Your task to perform on an android device: choose inbox layout in the gmail app Image 0: 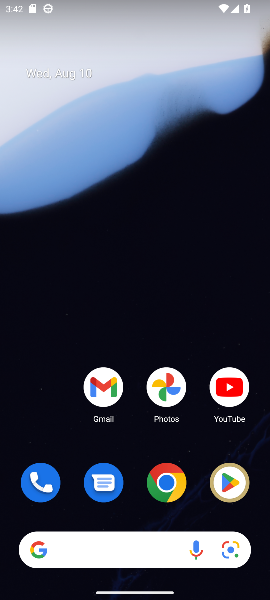
Step 0: press home button
Your task to perform on an android device: choose inbox layout in the gmail app Image 1: 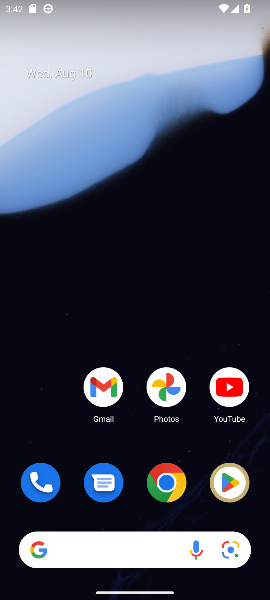
Step 1: drag from (136, 501) to (96, 43)
Your task to perform on an android device: choose inbox layout in the gmail app Image 2: 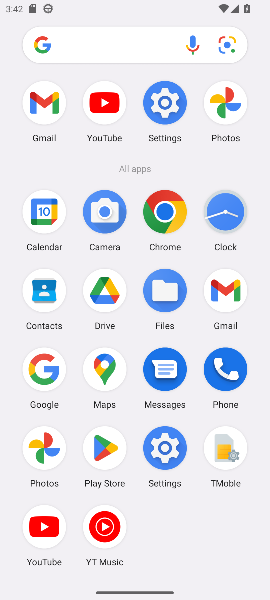
Step 2: click (38, 103)
Your task to perform on an android device: choose inbox layout in the gmail app Image 3: 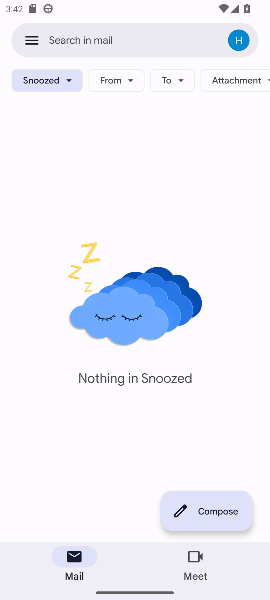
Step 3: click (31, 39)
Your task to perform on an android device: choose inbox layout in the gmail app Image 4: 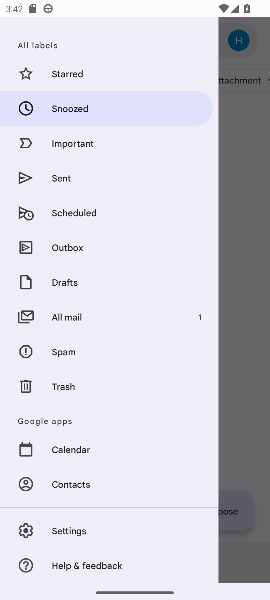
Step 4: click (68, 529)
Your task to perform on an android device: choose inbox layout in the gmail app Image 5: 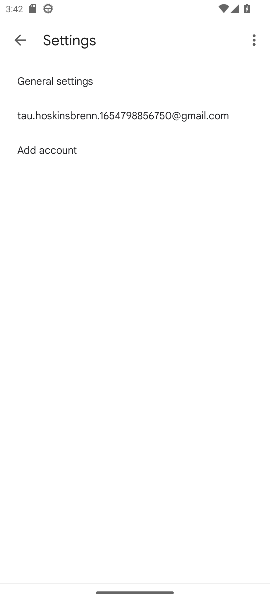
Step 5: click (104, 119)
Your task to perform on an android device: choose inbox layout in the gmail app Image 6: 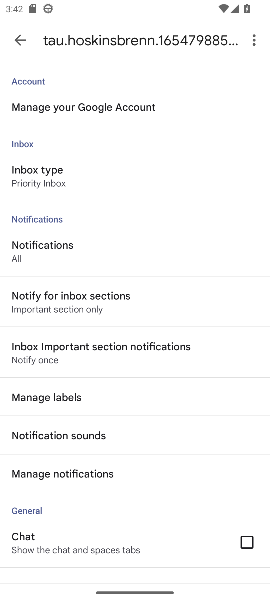
Step 6: click (47, 174)
Your task to perform on an android device: choose inbox layout in the gmail app Image 7: 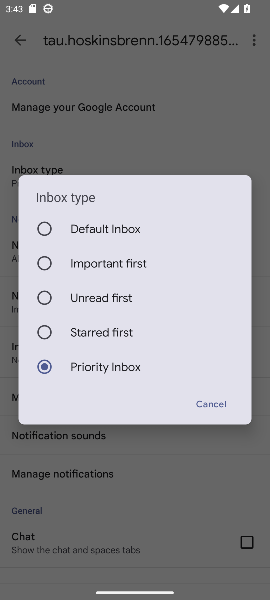
Step 7: click (93, 327)
Your task to perform on an android device: choose inbox layout in the gmail app Image 8: 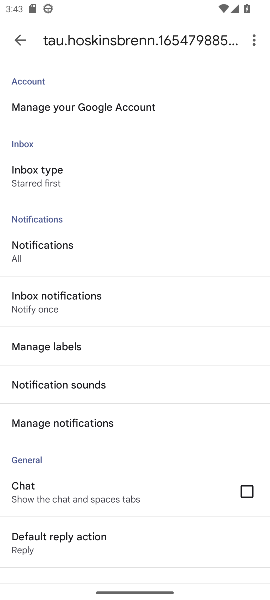
Step 8: task complete